Your task to perform on an android device: What's the weather today? Image 0: 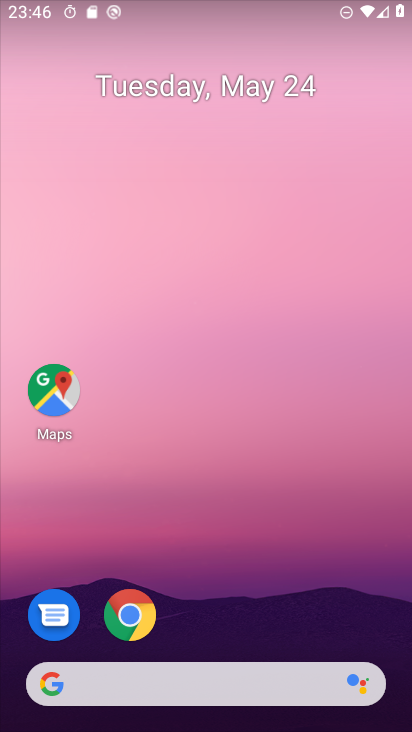
Step 0: drag from (255, 706) to (223, 102)
Your task to perform on an android device: What's the weather today? Image 1: 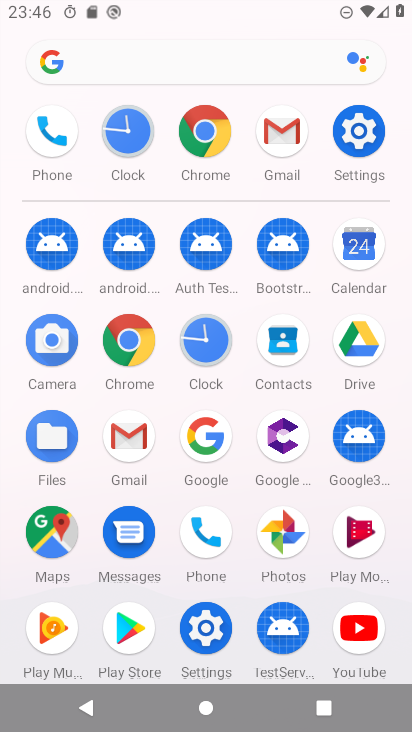
Step 1: click (158, 63)
Your task to perform on an android device: What's the weather today? Image 2: 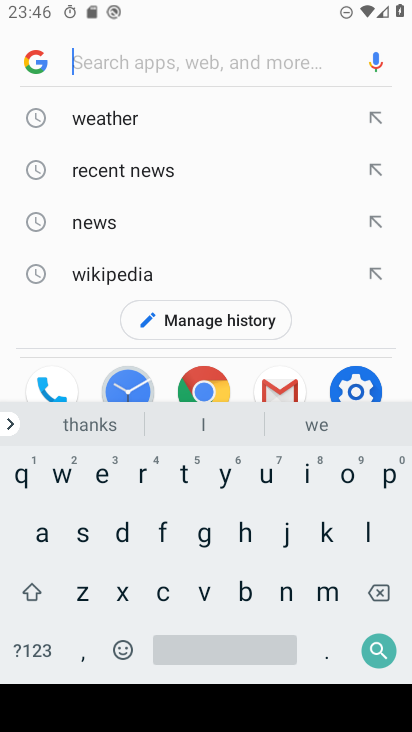
Step 2: click (118, 117)
Your task to perform on an android device: What's the weather today? Image 3: 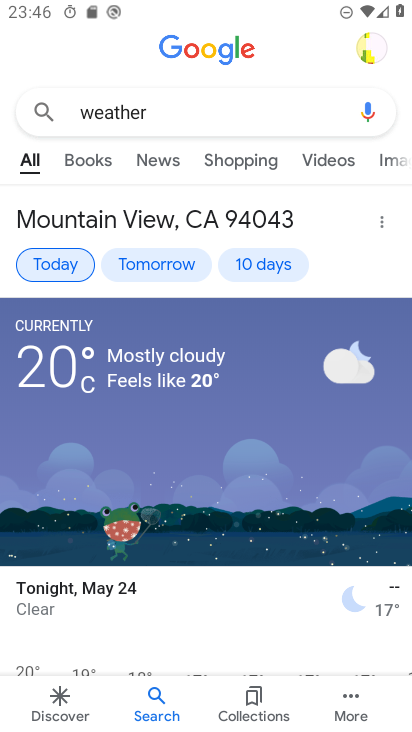
Step 3: task complete